Your task to perform on an android device: Open display settings Image 0: 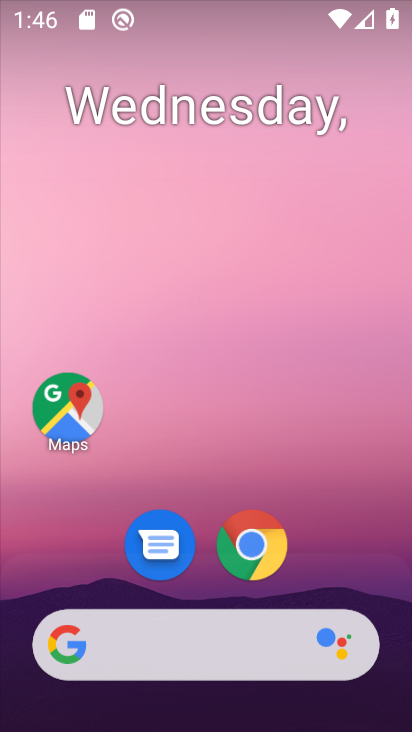
Step 0: drag from (129, 616) to (359, 79)
Your task to perform on an android device: Open display settings Image 1: 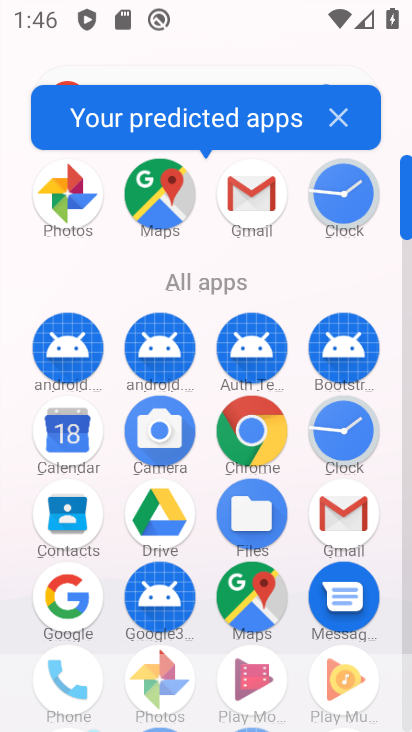
Step 1: drag from (132, 672) to (265, 349)
Your task to perform on an android device: Open display settings Image 2: 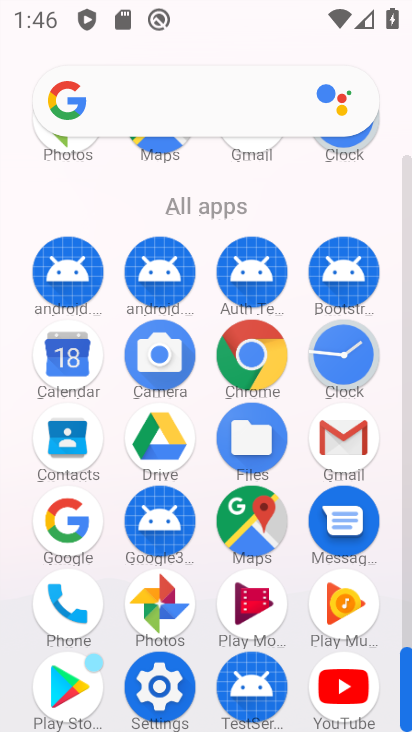
Step 2: click (153, 687)
Your task to perform on an android device: Open display settings Image 3: 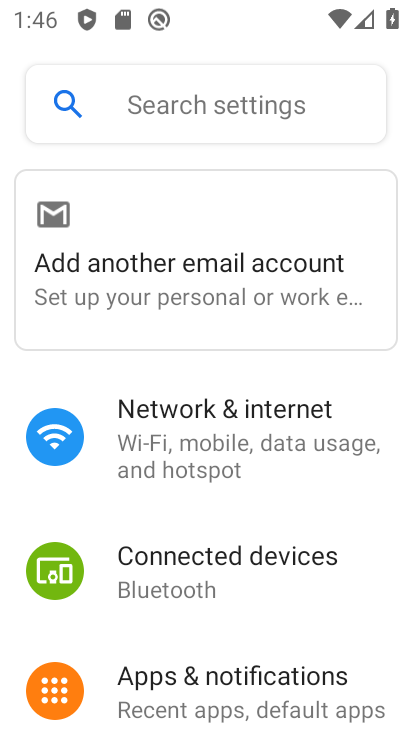
Step 3: drag from (185, 658) to (316, 272)
Your task to perform on an android device: Open display settings Image 4: 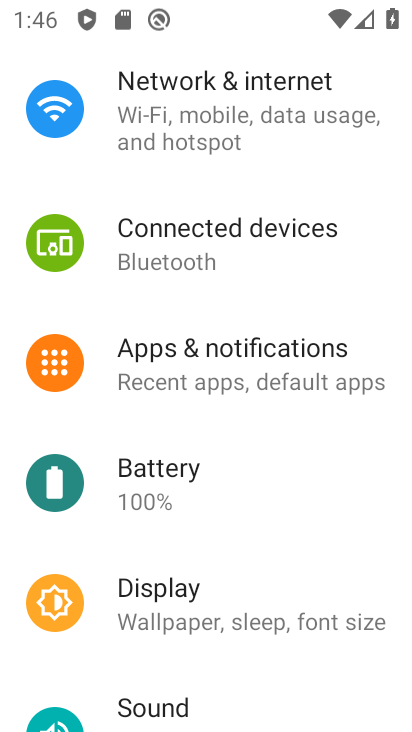
Step 4: click (244, 623)
Your task to perform on an android device: Open display settings Image 5: 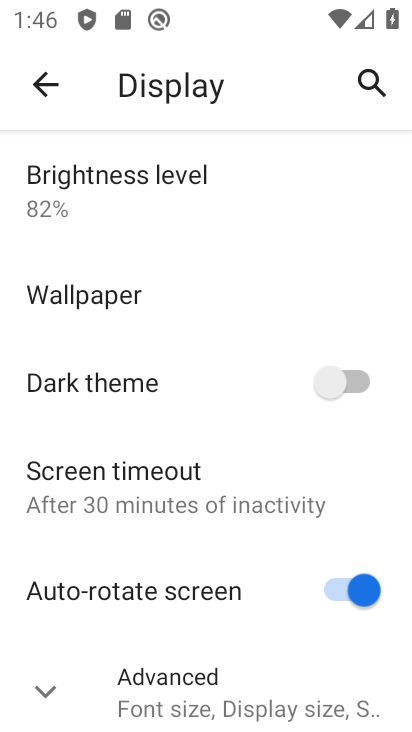
Step 5: task complete